Your task to perform on an android device: Go to Amazon Image 0: 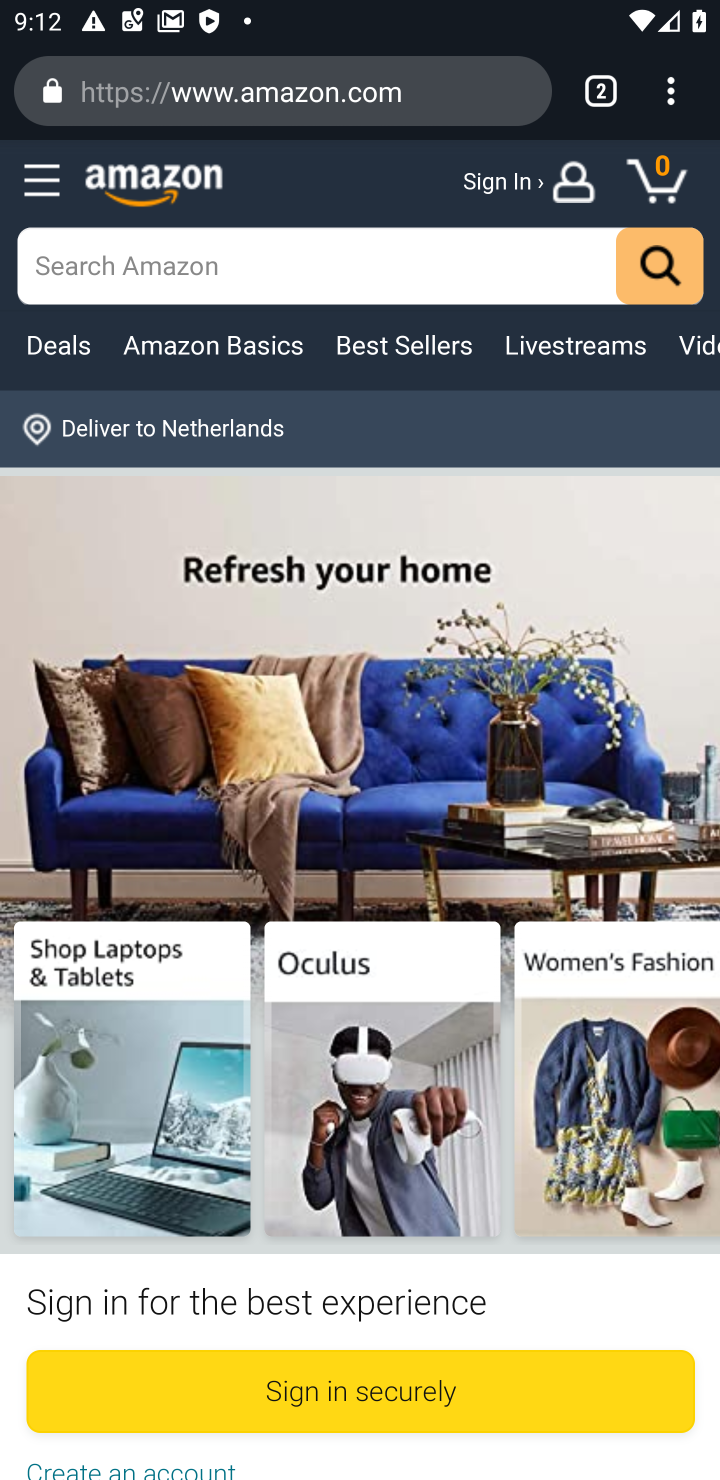
Step 0: task complete